Your task to perform on an android device: change the clock style Image 0: 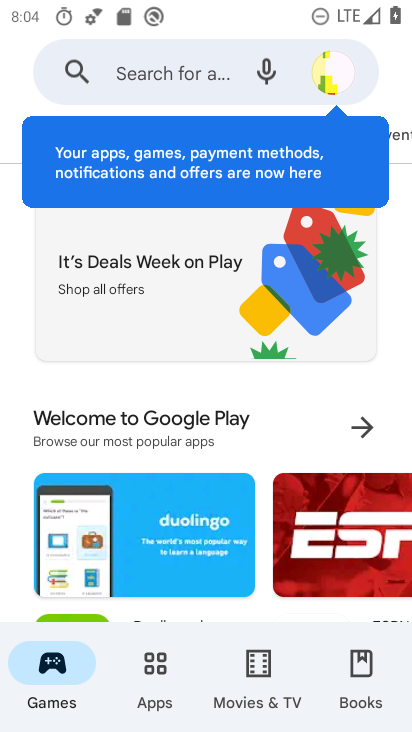
Step 0: press back button
Your task to perform on an android device: change the clock style Image 1: 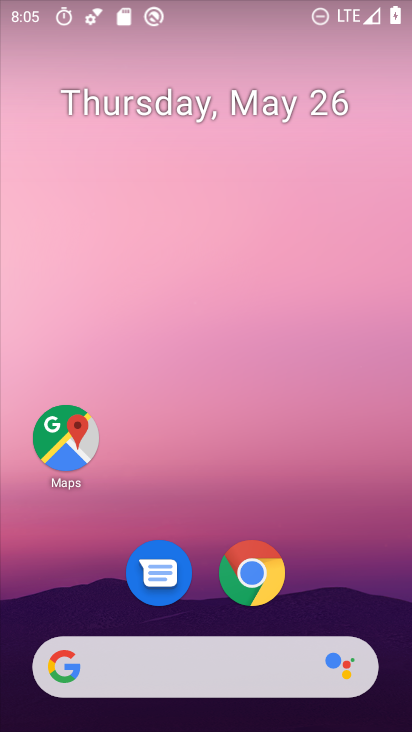
Step 1: drag from (382, 555) to (247, 15)
Your task to perform on an android device: change the clock style Image 2: 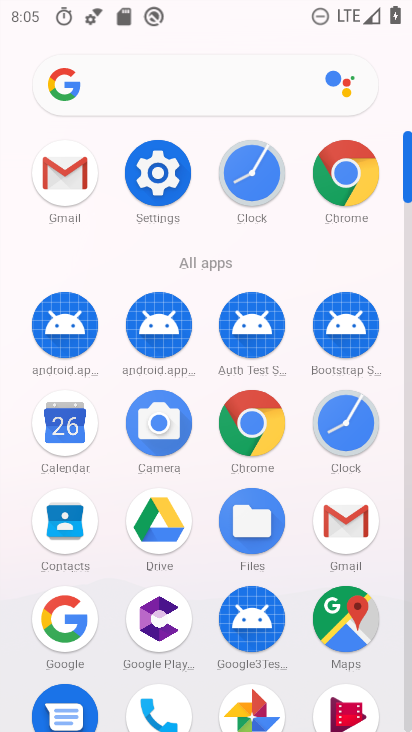
Step 2: drag from (5, 604) to (5, 280)
Your task to perform on an android device: change the clock style Image 3: 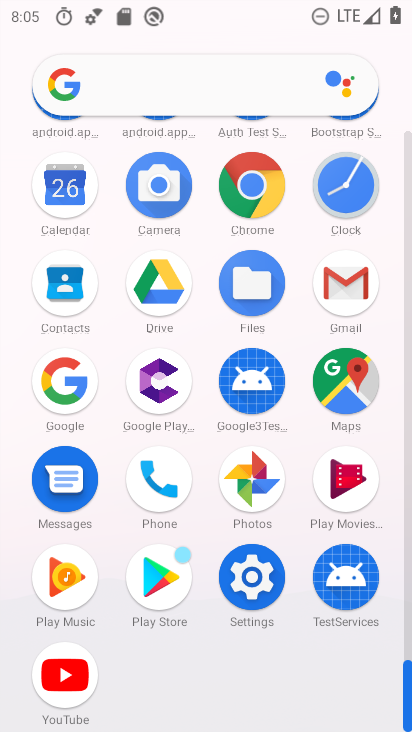
Step 3: click (341, 183)
Your task to perform on an android device: change the clock style Image 4: 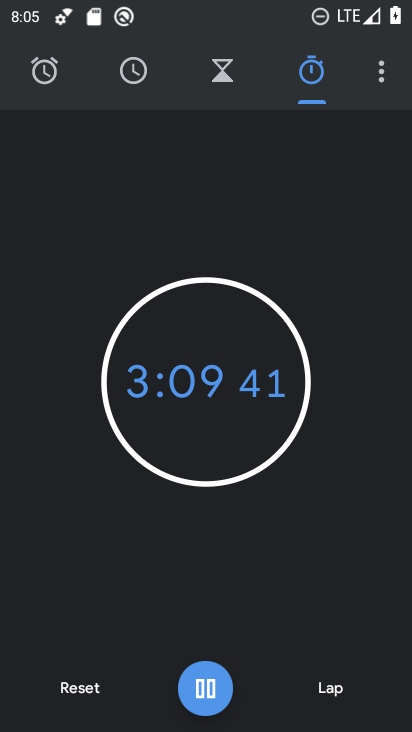
Step 4: click (52, 81)
Your task to perform on an android device: change the clock style Image 5: 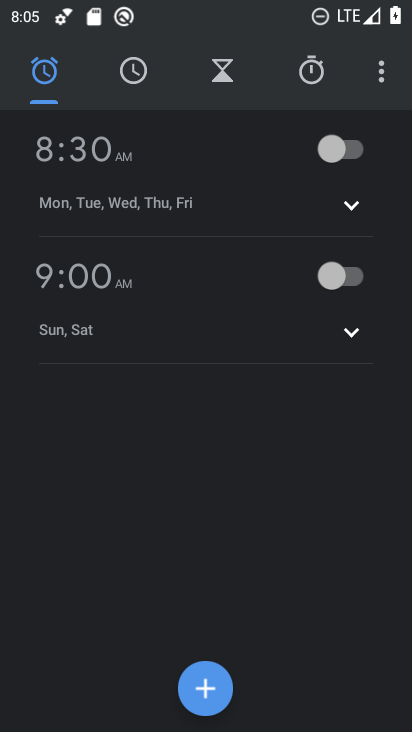
Step 5: drag from (380, 69) to (270, 137)
Your task to perform on an android device: change the clock style Image 6: 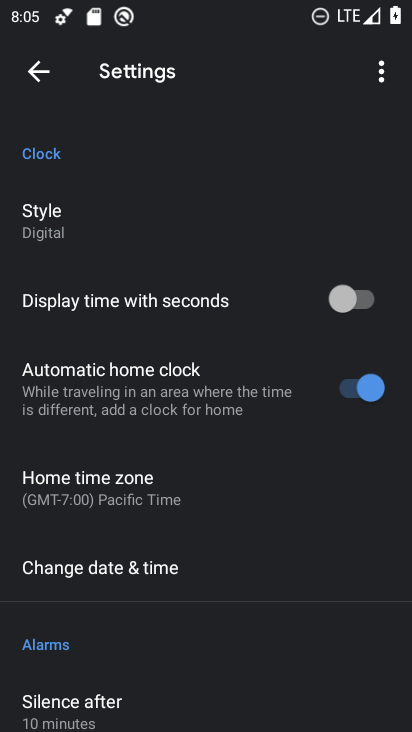
Step 6: drag from (195, 587) to (198, 231)
Your task to perform on an android device: change the clock style Image 7: 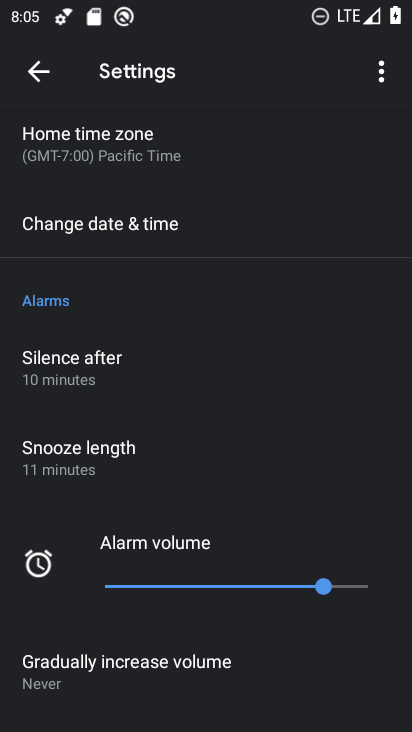
Step 7: drag from (229, 264) to (209, 553)
Your task to perform on an android device: change the clock style Image 8: 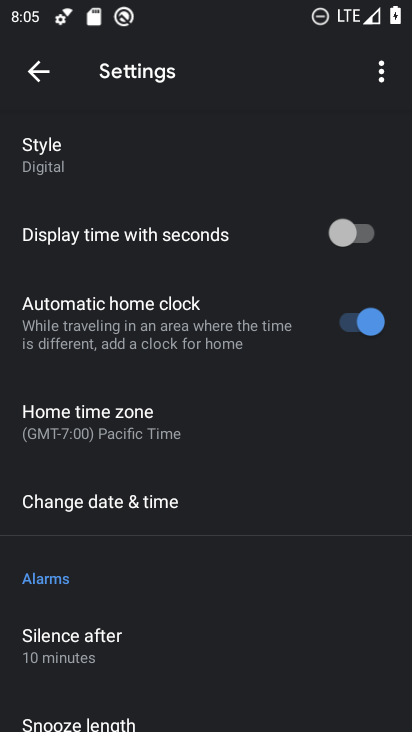
Step 8: click (100, 148)
Your task to perform on an android device: change the clock style Image 9: 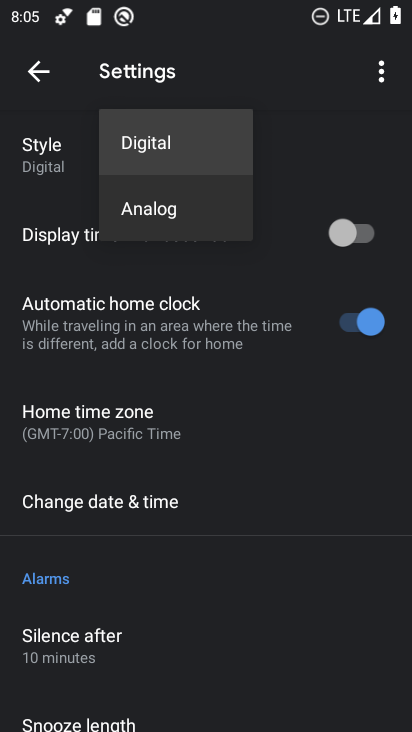
Step 9: click (143, 197)
Your task to perform on an android device: change the clock style Image 10: 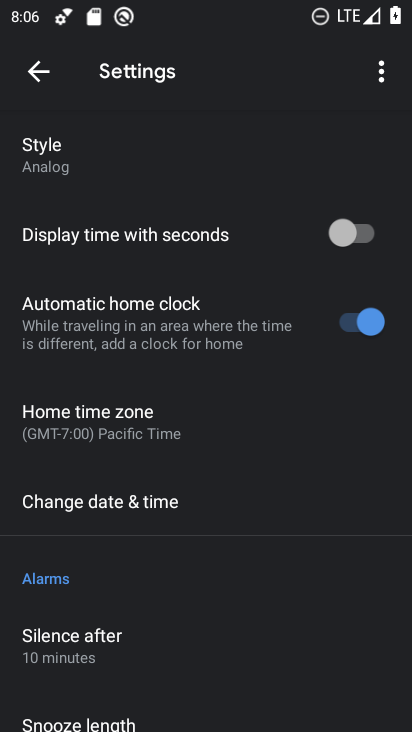
Step 10: task complete